Your task to perform on an android device: Open calendar and show me the second week of next month Image 0: 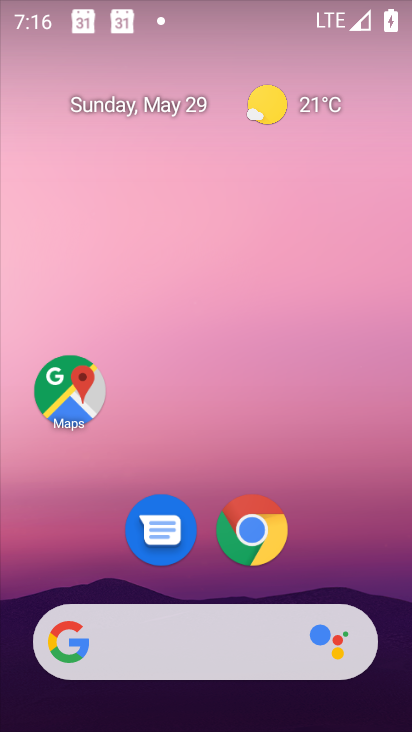
Step 0: drag from (270, 597) to (202, 36)
Your task to perform on an android device: Open calendar and show me the second week of next month Image 1: 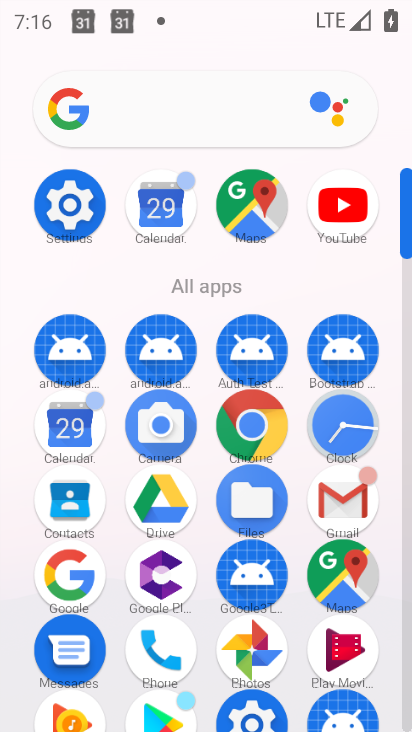
Step 1: click (77, 424)
Your task to perform on an android device: Open calendar and show me the second week of next month Image 2: 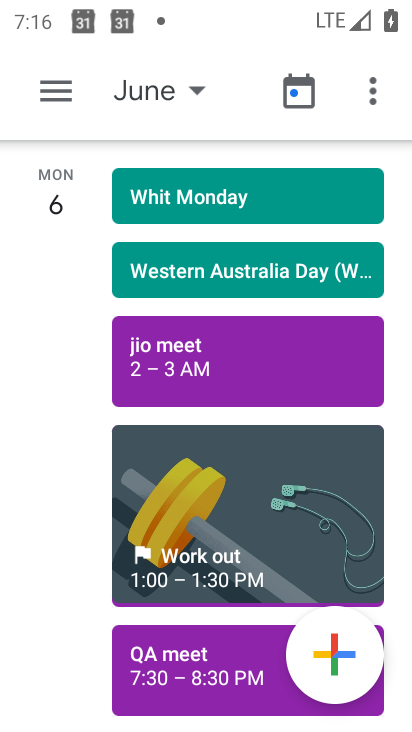
Step 2: click (57, 110)
Your task to perform on an android device: Open calendar and show me the second week of next month Image 3: 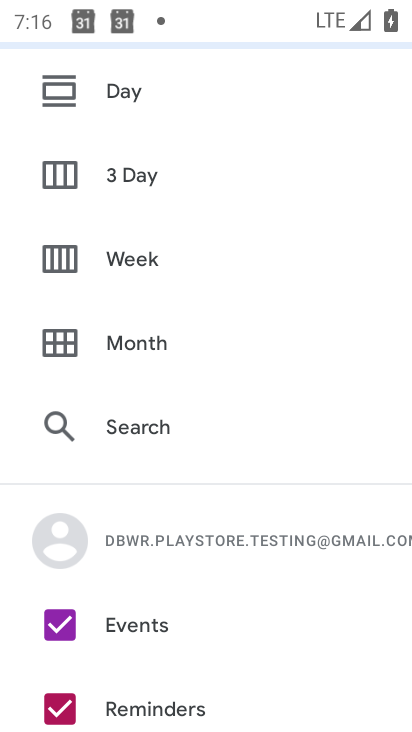
Step 3: click (136, 364)
Your task to perform on an android device: Open calendar and show me the second week of next month Image 4: 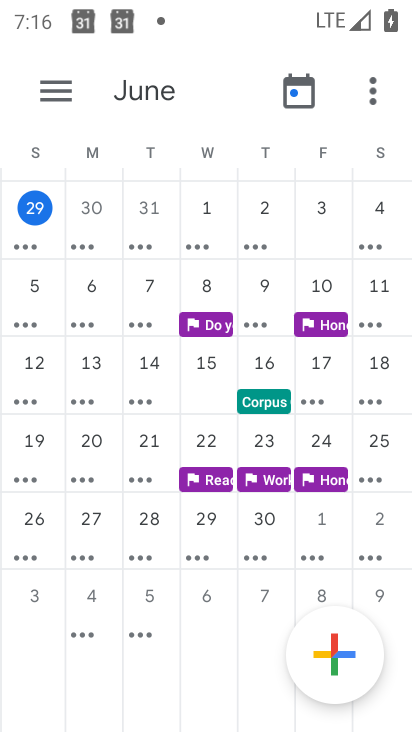
Step 4: click (95, 296)
Your task to perform on an android device: Open calendar and show me the second week of next month Image 5: 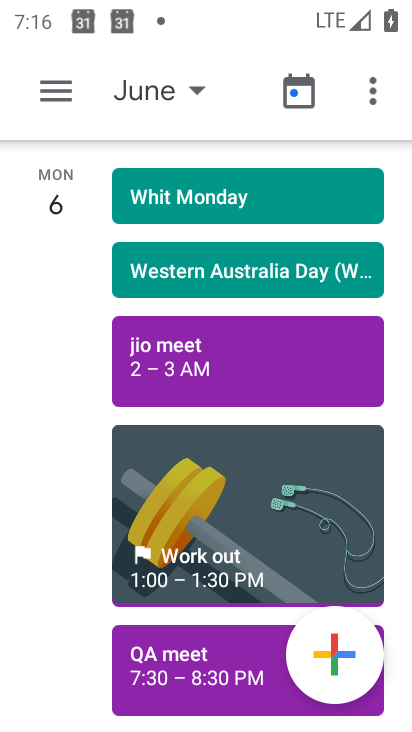
Step 5: task complete